Your task to perform on an android device: turn vacation reply on in the gmail app Image 0: 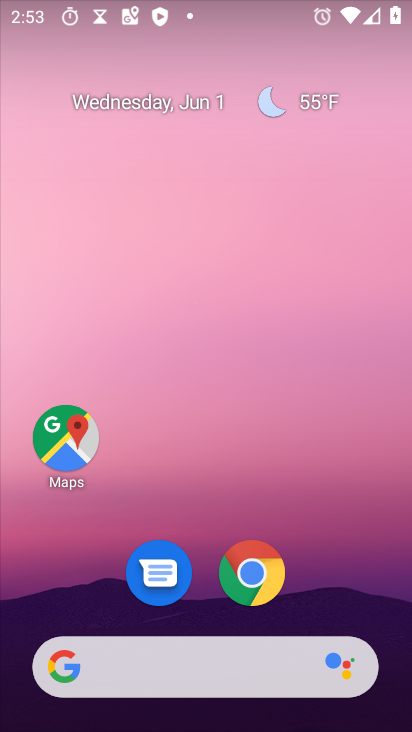
Step 0: drag from (377, 592) to (349, 59)
Your task to perform on an android device: turn vacation reply on in the gmail app Image 1: 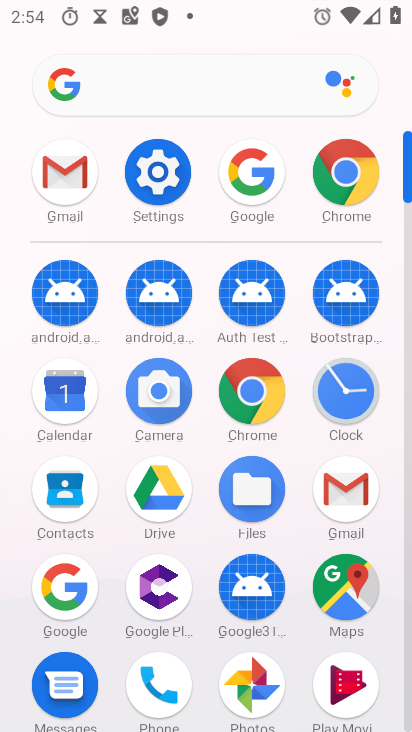
Step 1: click (62, 181)
Your task to perform on an android device: turn vacation reply on in the gmail app Image 2: 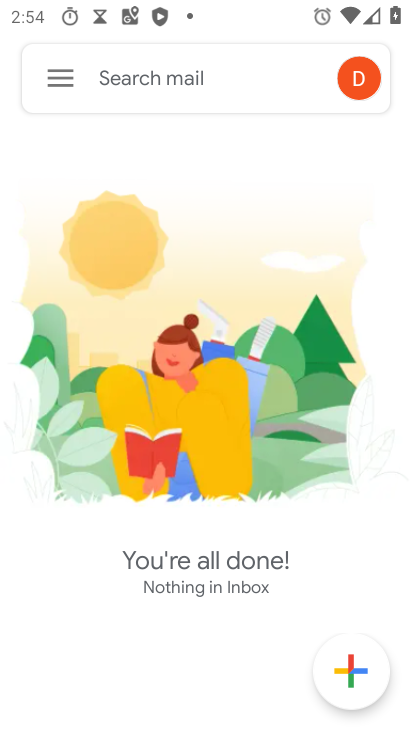
Step 2: click (36, 88)
Your task to perform on an android device: turn vacation reply on in the gmail app Image 3: 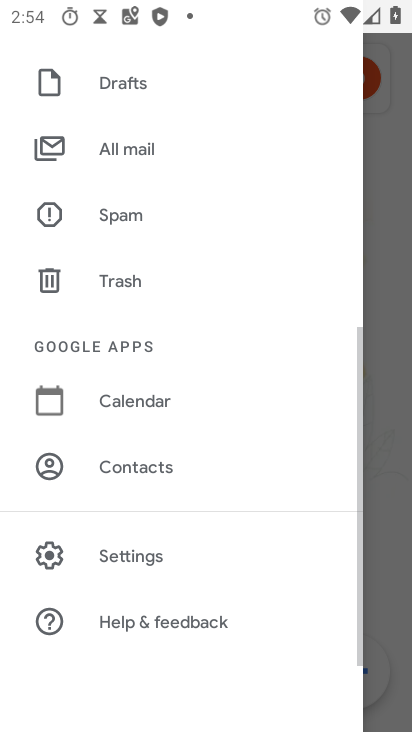
Step 3: click (143, 565)
Your task to perform on an android device: turn vacation reply on in the gmail app Image 4: 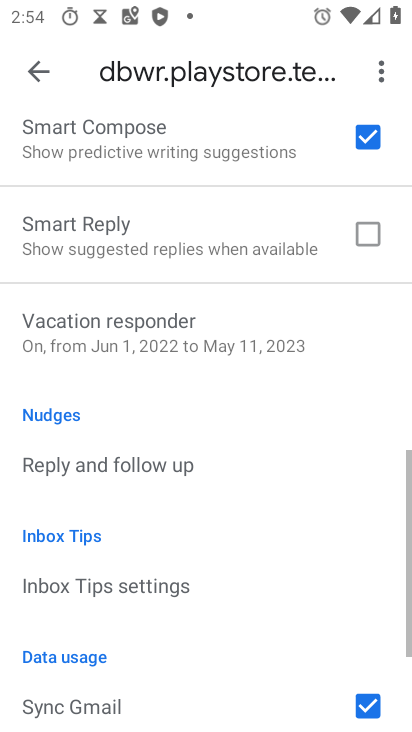
Step 4: task complete